Your task to perform on an android device: turn pop-ups off in chrome Image 0: 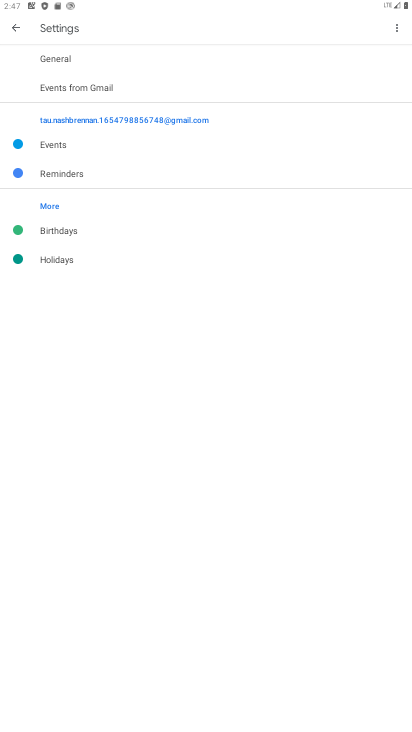
Step 0: press home button
Your task to perform on an android device: turn pop-ups off in chrome Image 1: 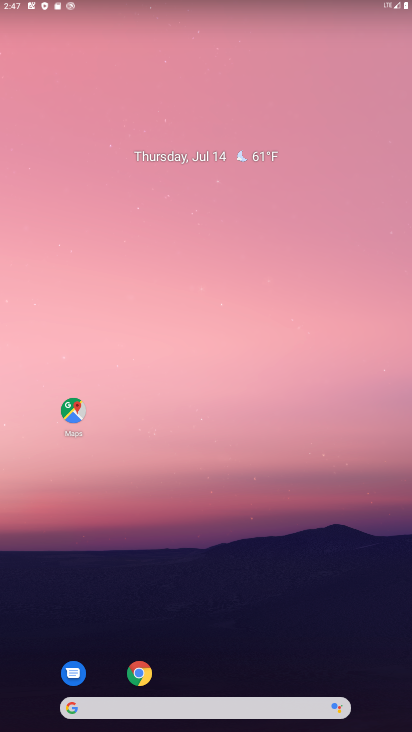
Step 1: click (143, 673)
Your task to perform on an android device: turn pop-ups off in chrome Image 2: 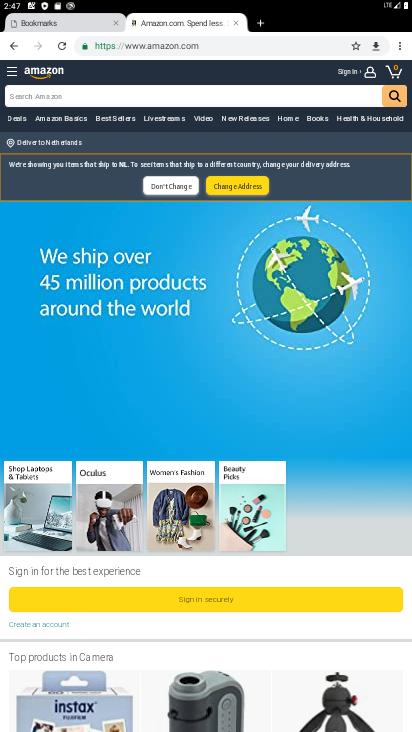
Step 2: click (404, 49)
Your task to perform on an android device: turn pop-ups off in chrome Image 3: 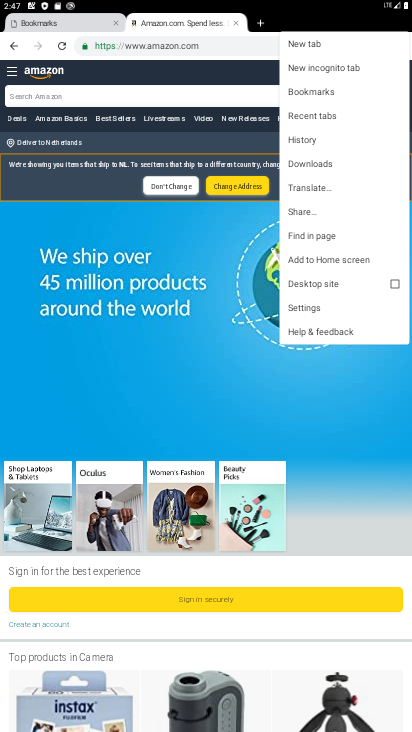
Step 3: click (320, 316)
Your task to perform on an android device: turn pop-ups off in chrome Image 4: 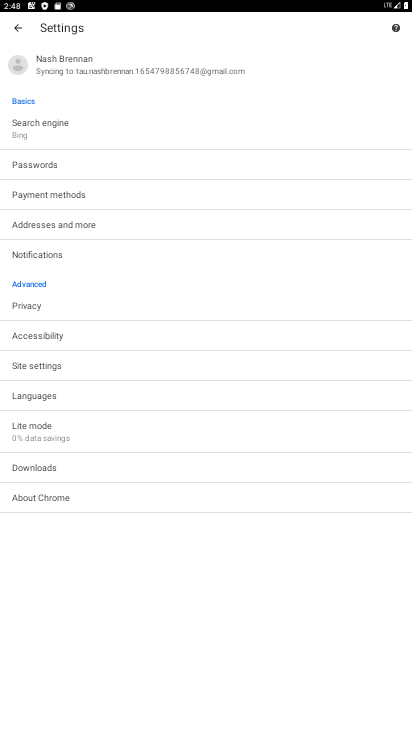
Step 4: click (88, 375)
Your task to perform on an android device: turn pop-ups off in chrome Image 5: 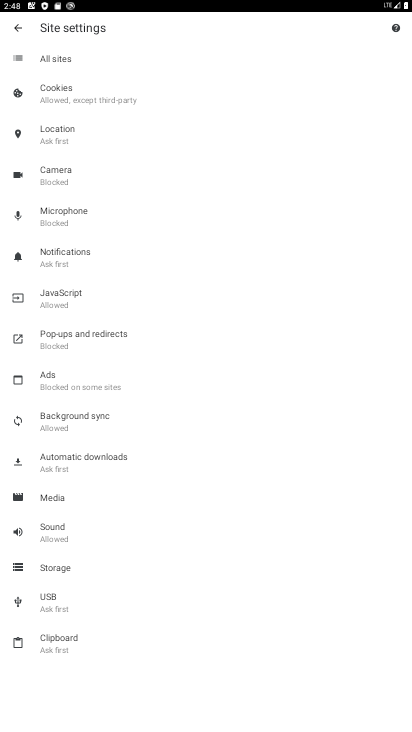
Step 5: click (147, 333)
Your task to perform on an android device: turn pop-ups off in chrome Image 6: 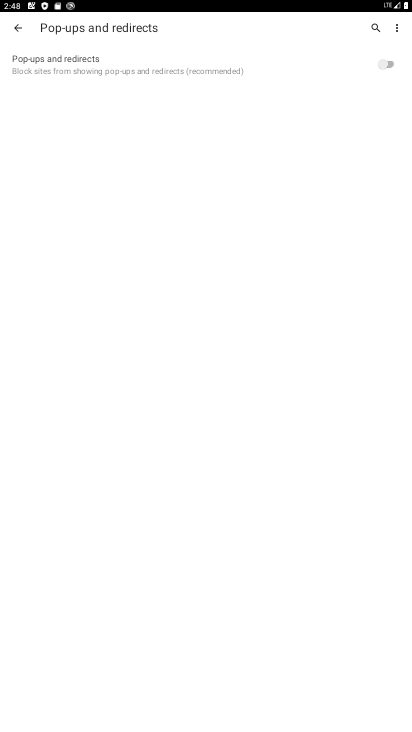
Step 6: task complete